Your task to perform on an android device: change your default location settings in chrome Image 0: 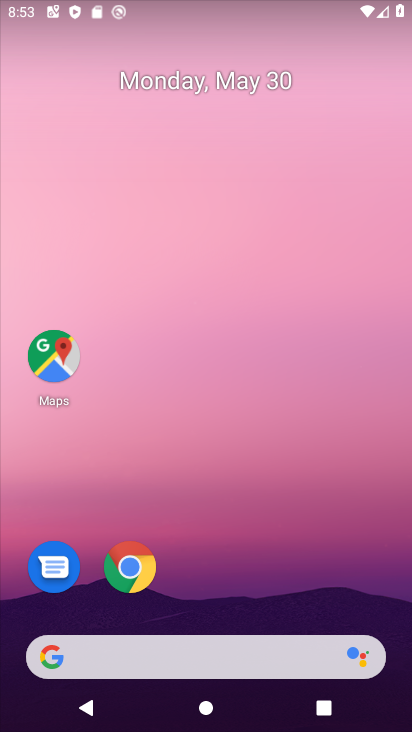
Step 0: task impossible